Your task to perform on an android device: Turn on the flashlight Image 0: 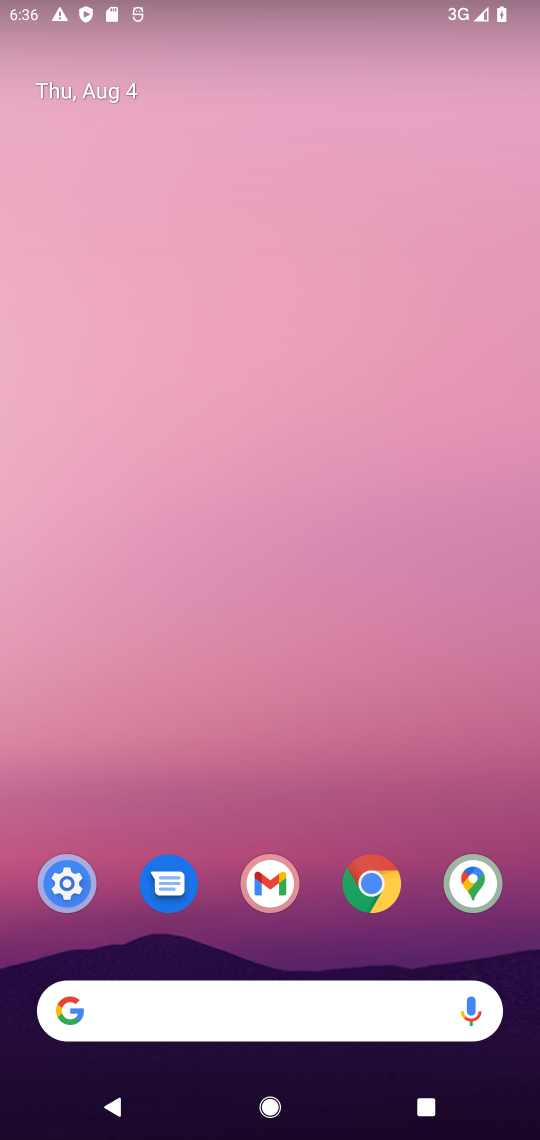
Step 0: drag from (443, 795) to (352, 34)
Your task to perform on an android device: Turn on the flashlight Image 1: 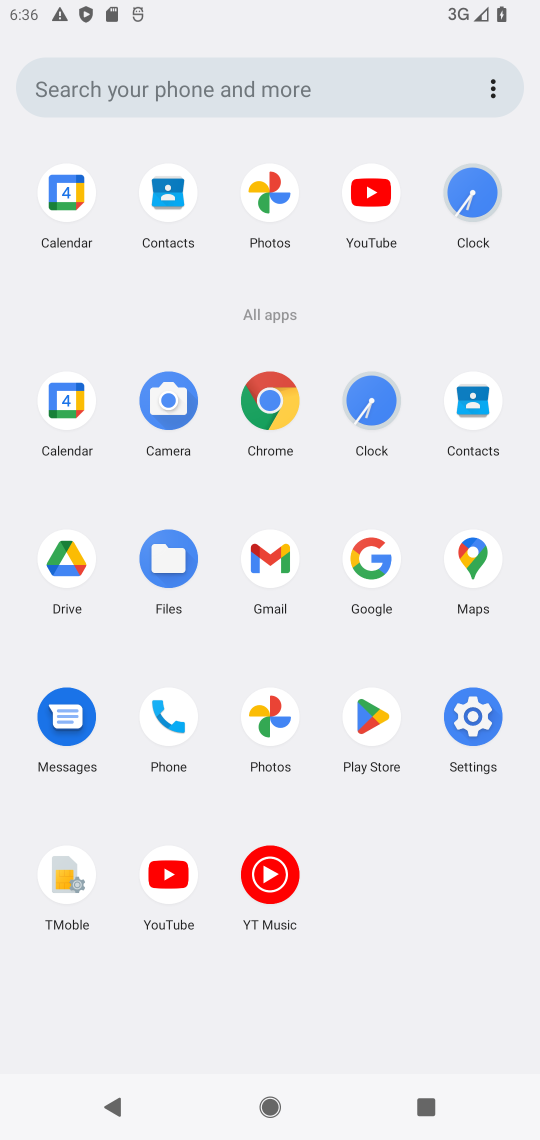
Step 1: drag from (378, 10) to (457, 943)
Your task to perform on an android device: Turn on the flashlight Image 2: 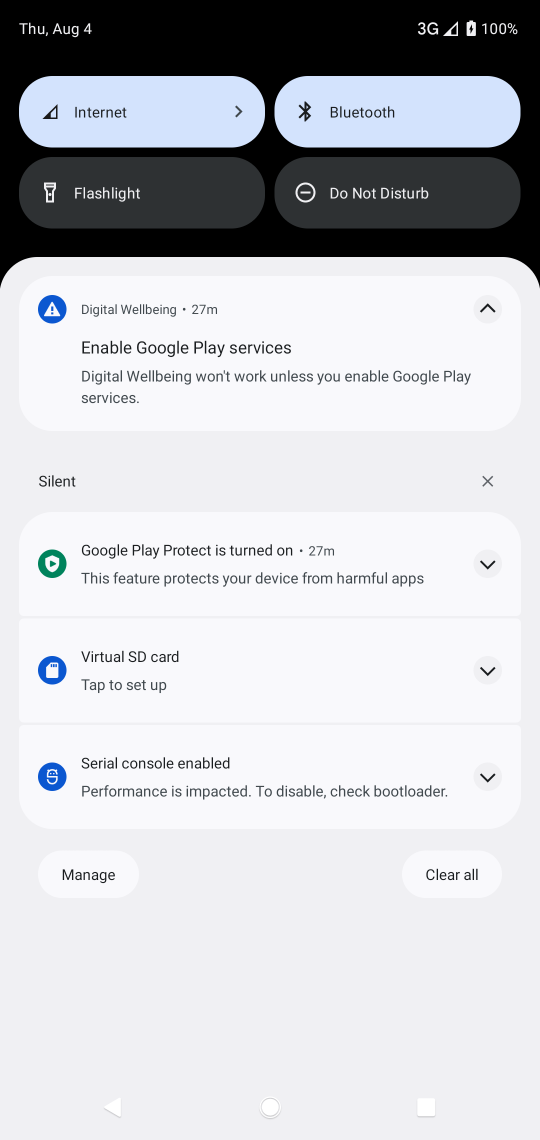
Step 2: drag from (264, 236) to (336, 1128)
Your task to perform on an android device: Turn on the flashlight Image 3: 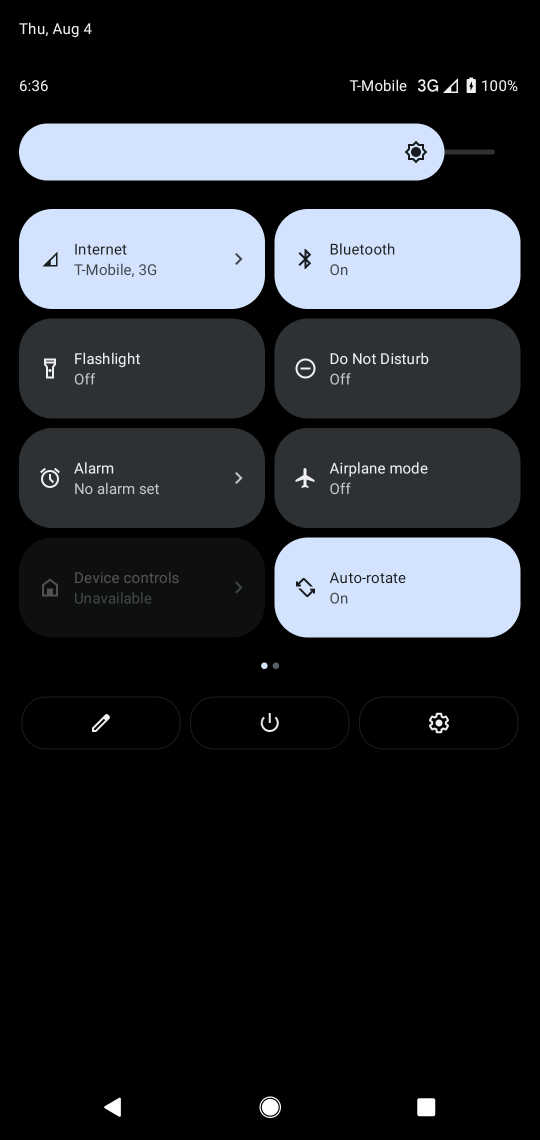
Step 3: click (154, 364)
Your task to perform on an android device: Turn on the flashlight Image 4: 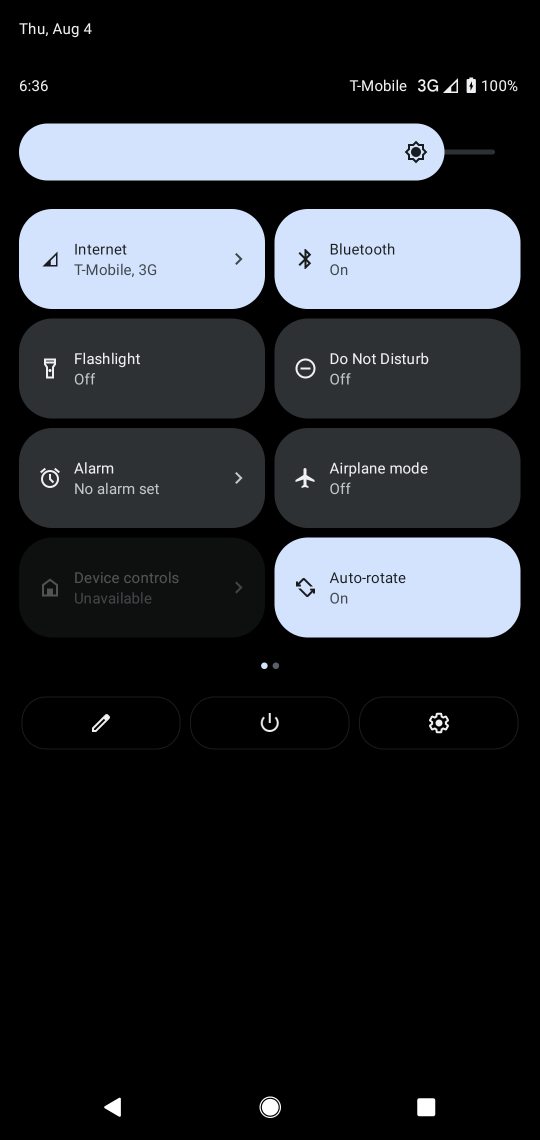
Step 4: click (97, 370)
Your task to perform on an android device: Turn on the flashlight Image 5: 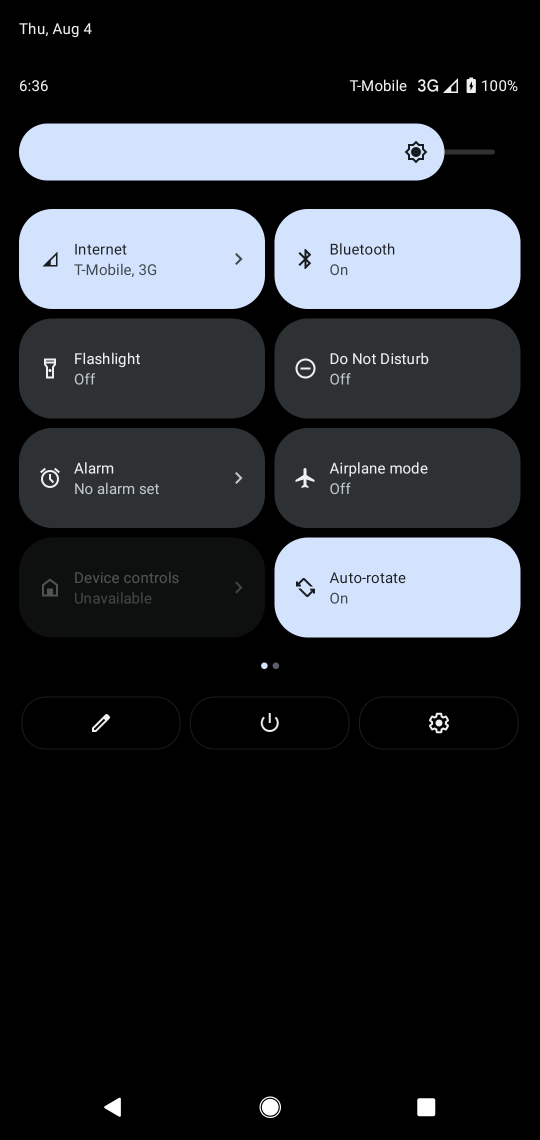
Step 5: task complete